Your task to perform on an android device: Go to Yahoo.com Image 0: 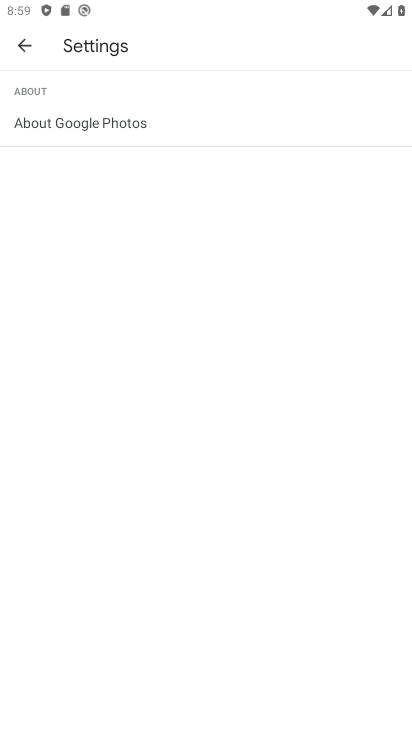
Step 0: press home button
Your task to perform on an android device: Go to Yahoo.com Image 1: 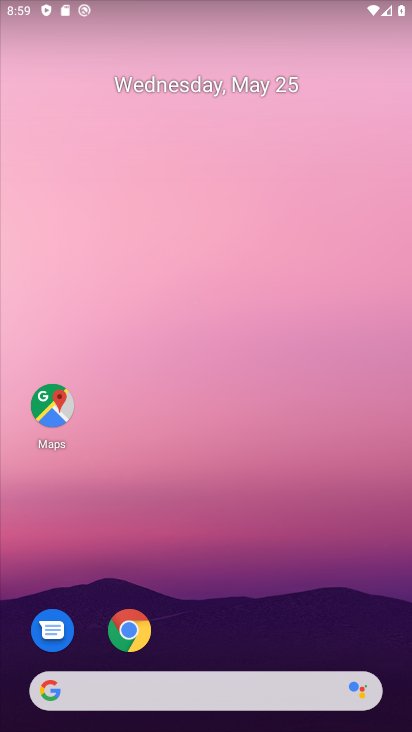
Step 1: click (134, 634)
Your task to perform on an android device: Go to Yahoo.com Image 2: 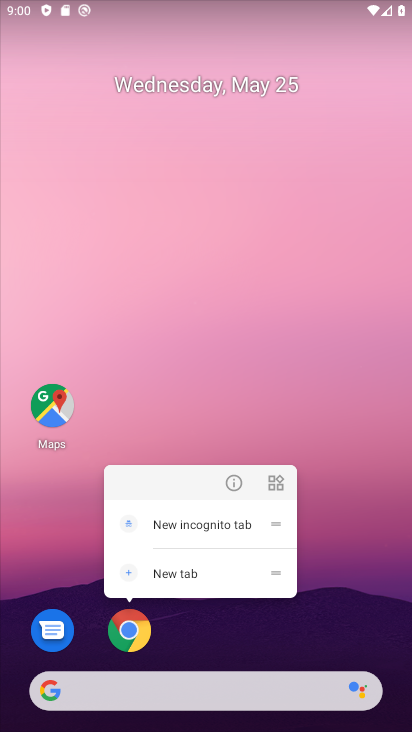
Step 2: click (129, 637)
Your task to perform on an android device: Go to Yahoo.com Image 3: 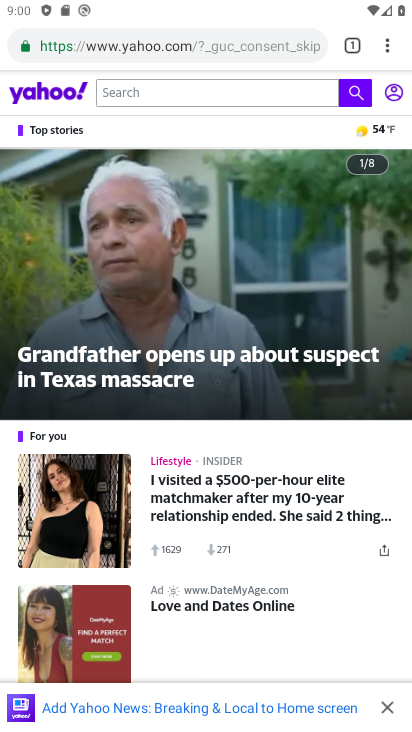
Step 3: task complete